Your task to perform on an android device: search for starred emails in the gmail app Image 0: 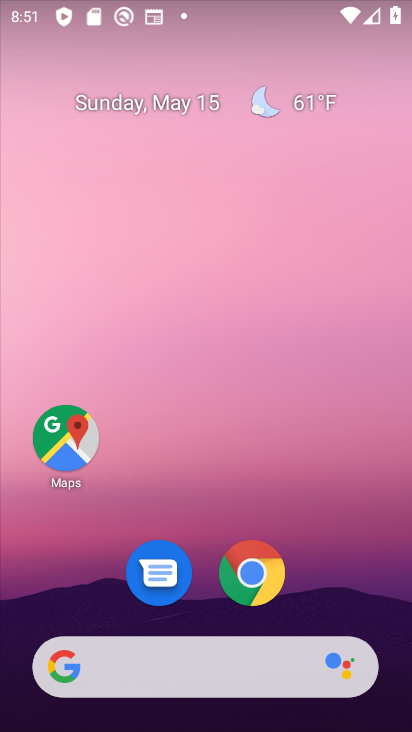
Step 0: drag from (43, 624) to (269, 75)
Your task to perform on an android device: search for starred emails in the gmail app Image 1: 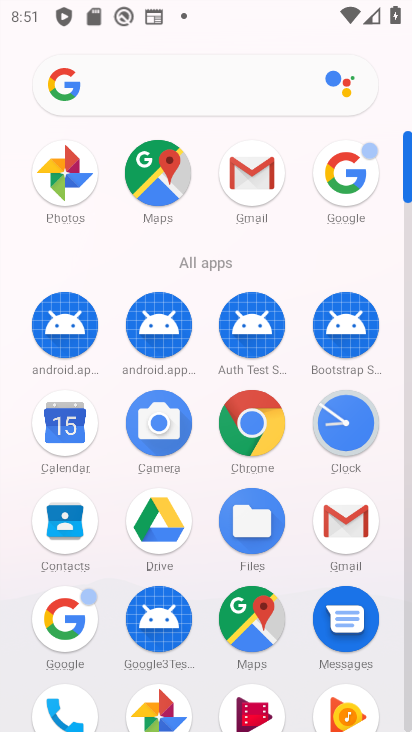
Step 1: drag from (206, 561) to (248, 400)
Your task to perform on an android device: search for starred emails in the gmail app Image 2: 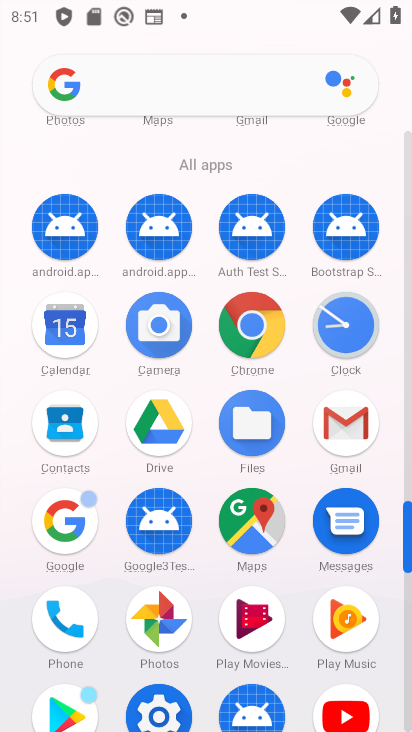
Step 2: click (360, 414)
Your task to perform on an android device: search for starred emails in the gmail app Image 3: 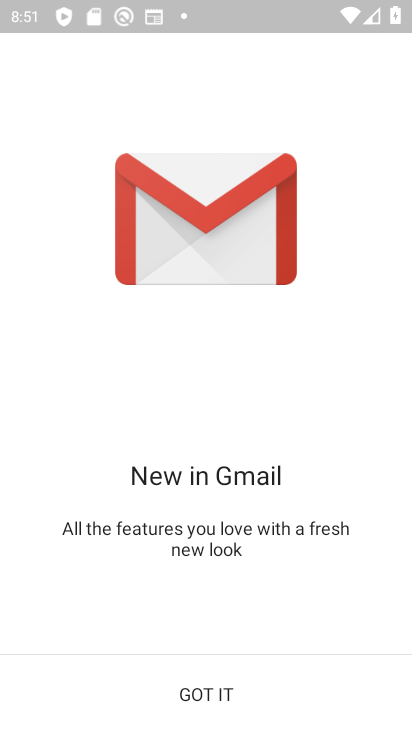
Step 3: click (227, 694)
Your task to perform on an android device: search for starred emails in the gmail app Image 4: 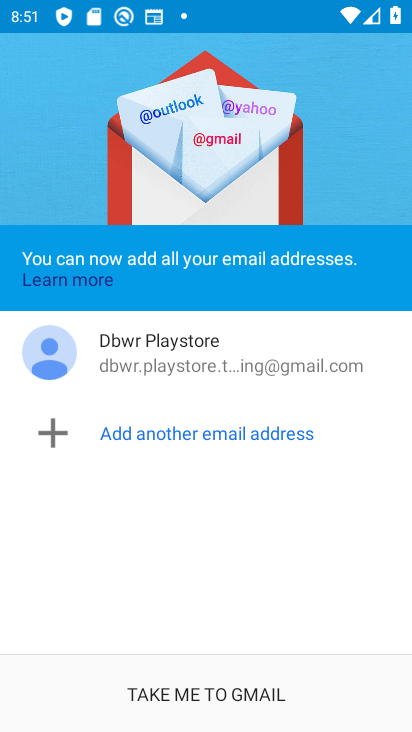
Step 4: click (224, 694)
Your task to perform on an android device: search for starred emails in the gmail app Image 5: 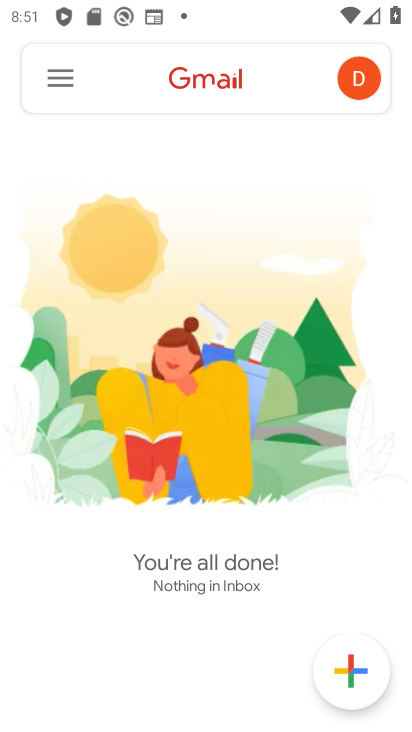
Step 5: click (67, 95)
Your task to perform on an android device: search for starred emails in the gmail app Image 6: 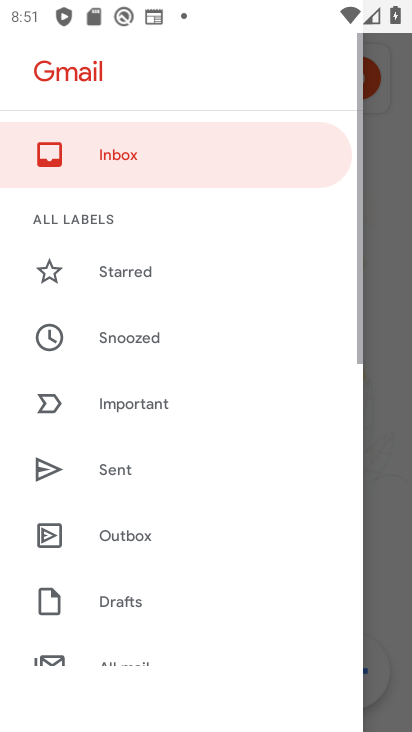
Step 6: drag from (179, 549) to (242, 373)
Your task to perform on an android device: search for starred emails in the gmail app Image 7: 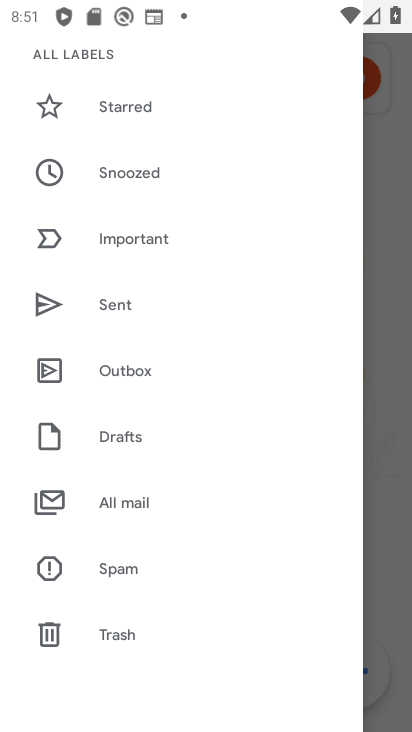
Step 7: click (173, 98)
Your task to perform on an android device: search for starred emails in the gmail app Image 8: 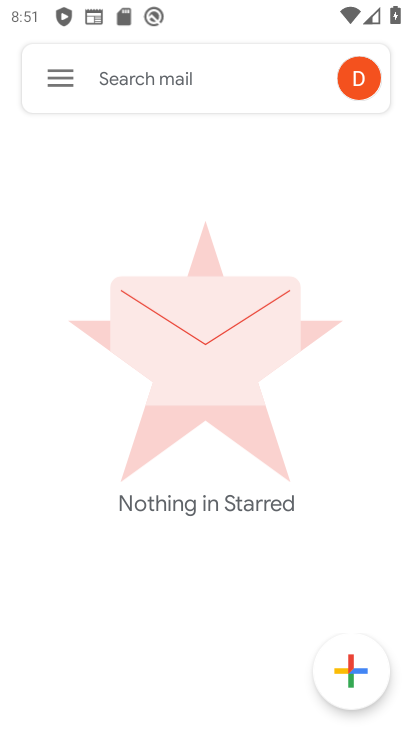
Step 8: task complete